Your task to perform on an android device: snooze an email in the gmail app Image 0: 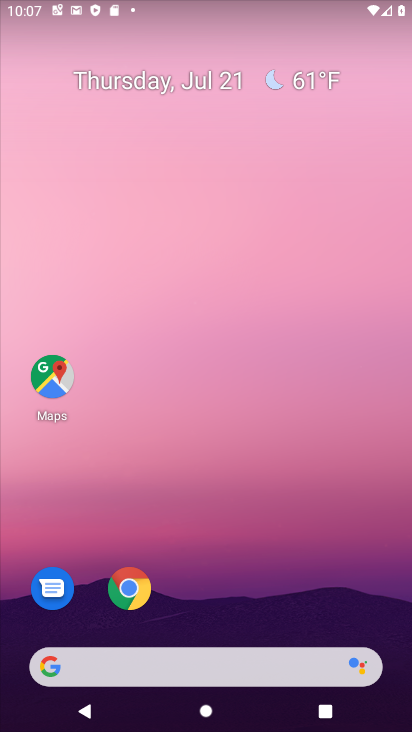
Step 0: drag from (222, 559) to (322, 2)
Your task to perform on an android device: snooze an email in the gmail app Image 1: 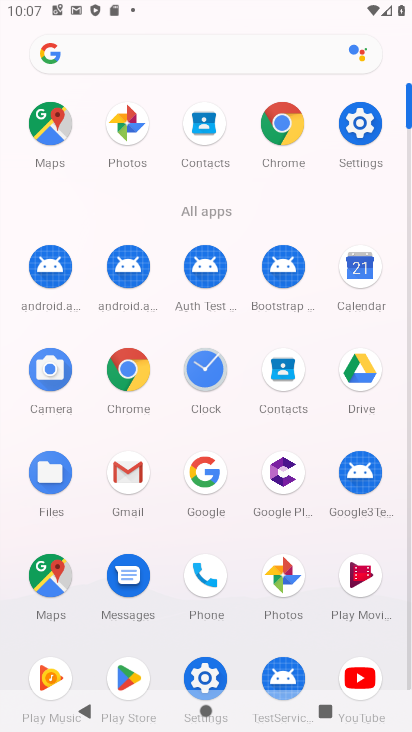
Step 1: click (136, 469)
Your task to perform on an android device: snooze an email in the gmail app Image 2: 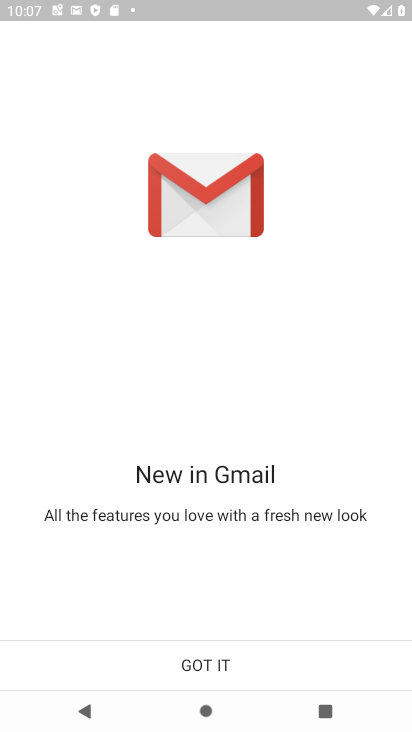
Step 2: click (174, 668)
Your task to perform on an android device: snooze an email in the gmail app Image 3: 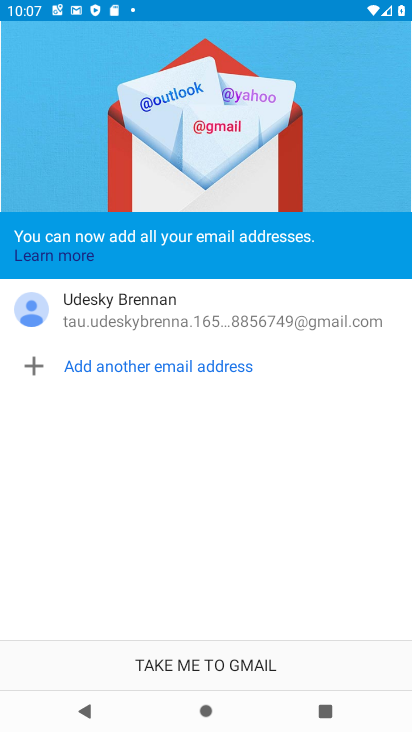
Step 3: click (203, 664)
Your task to perform on an android device: snooze an email in the gmail app Image 4: 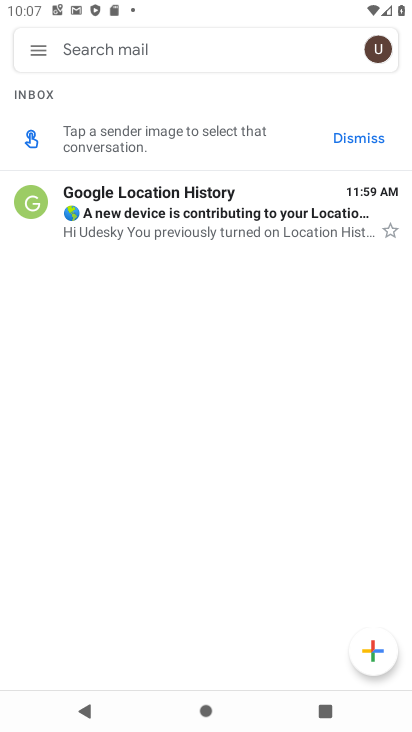
Step 4: click (185, 205)
Your task to perform on an android device: snooze an email in the gmail app Image 5: 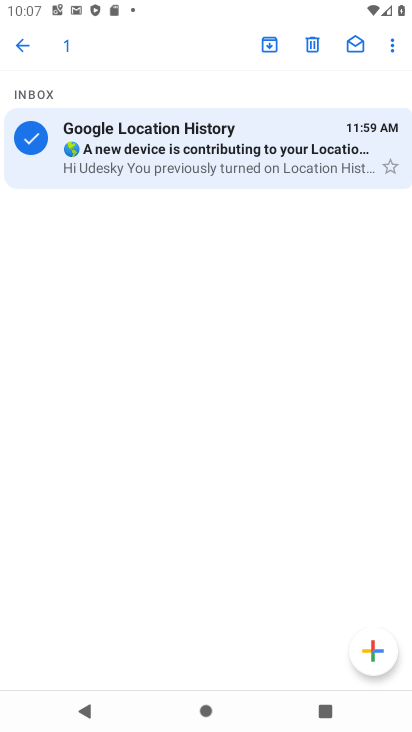
Step 5: click (393, 41)
Your task to perform on an android device: snooze an email in the gmail app Image 6: 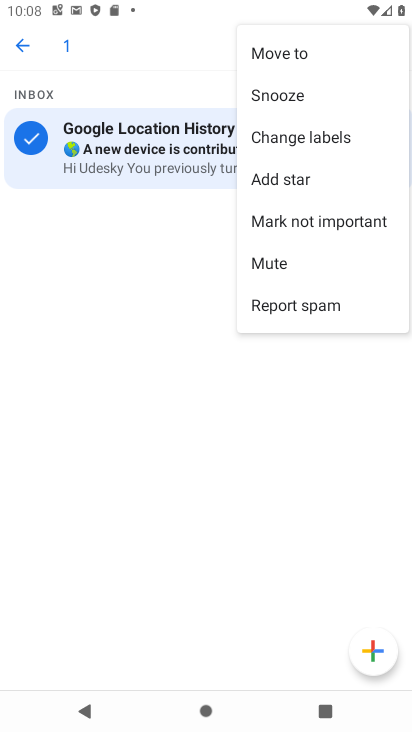
Step 6: click (277, 94)
Your task to perform on an android device: snooze an email in the gmail app Image 7: 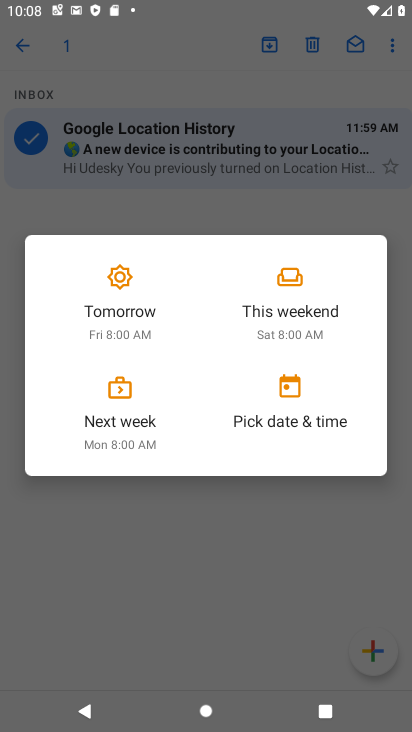
Step 7: click (121, 294)
Your task to perform on an android device: snooze an email in the gmail app Image 8: 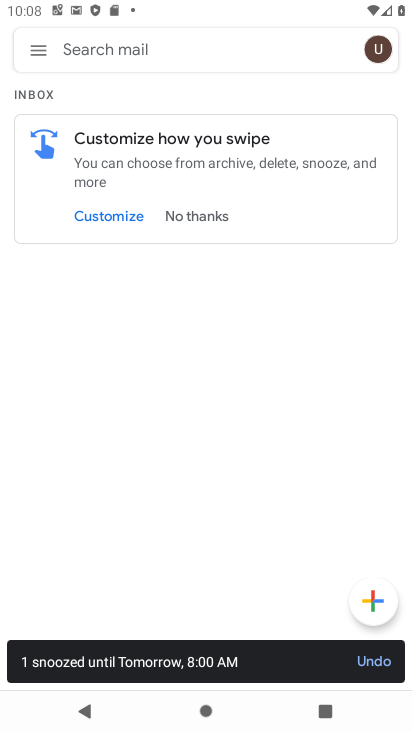
Step 8: task complete